Your task to perform on an android device: turn vacation reply on in the gmail app Image 0: 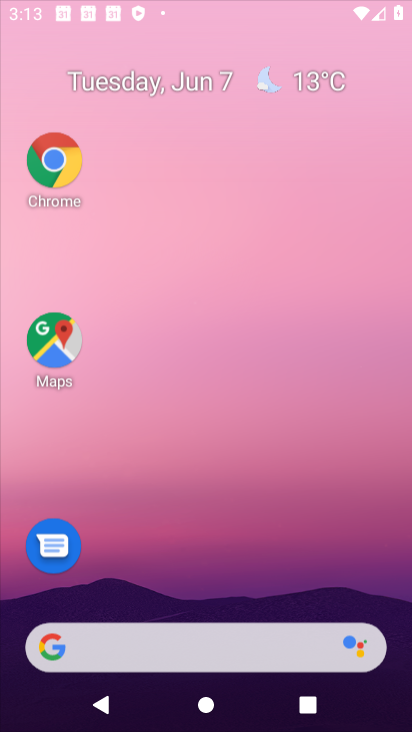
Step 0: click (188, 134)
Your task to perform on an android device: turn vacation reply on in the gmail app Image 1: 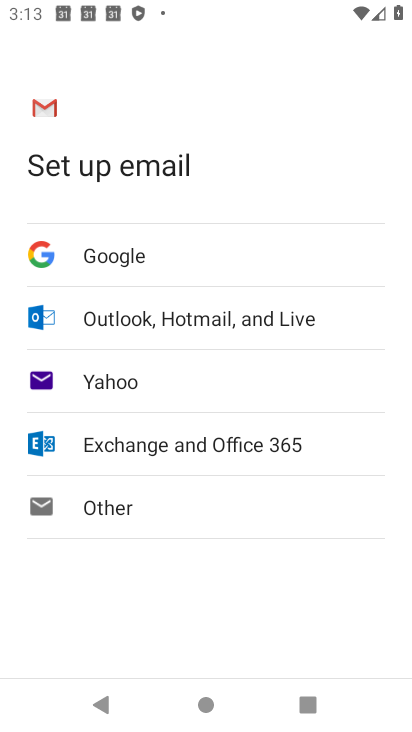
Step 1: press home button
Your task to perform on an android device: turn vacation reply on in the gmail app Image 2: 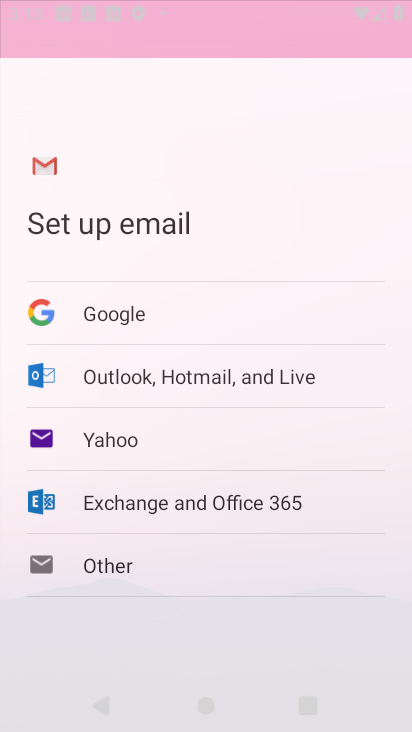
Step 2: drag from (204, 576) to (311, 95)
Your task to perform on an android device: turn vacation reply on in the gmail app Image 3: 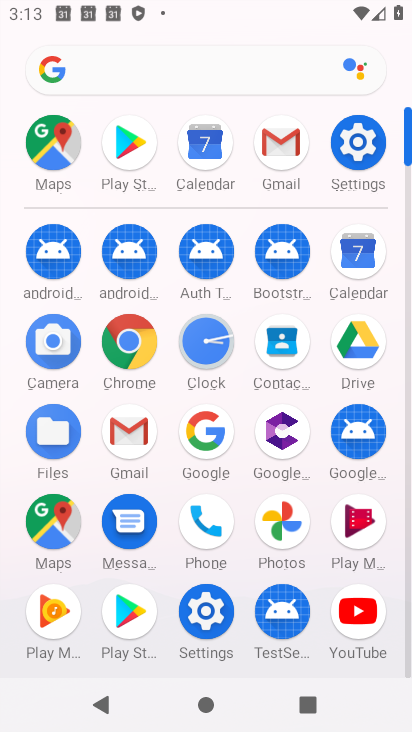
Step 3: click (138, 419)
Your task to perform on an android device: turn vacation reply on in the gmail app Image 4: 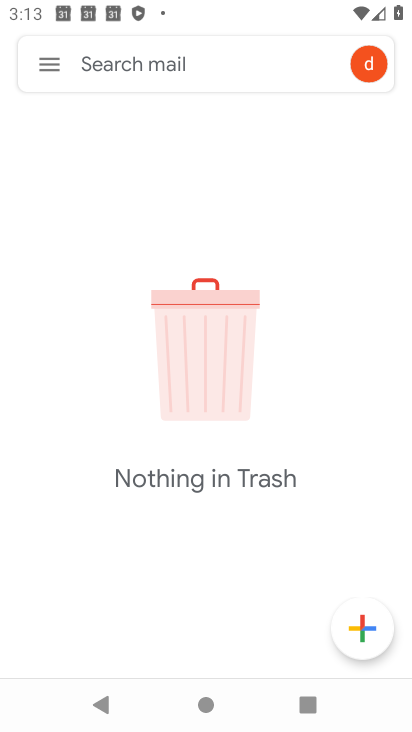
Step 4: click (43, 58)
Your task to perform on an android device: turn vacation reply on in the gmail app Image 5: 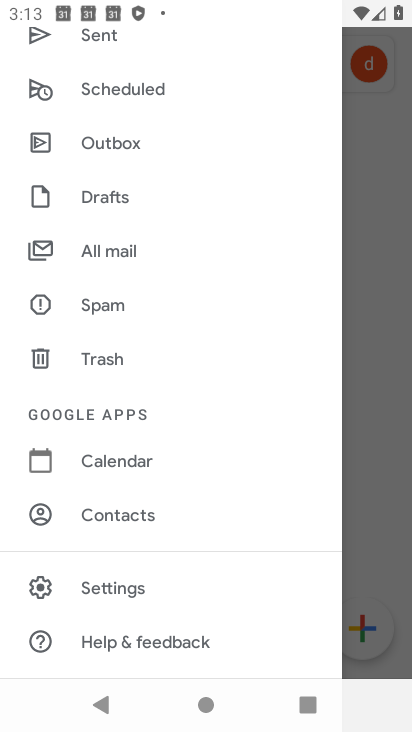
Step 5: click (130, 595)
Your task to perform on an android device: turn vacation reply on in the gmail app Image 6: 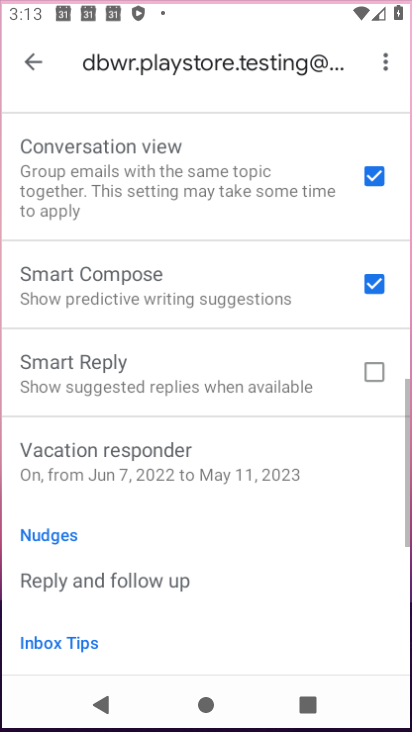
Step 6: drag from (131, 551) to (167, 36)
Your task to perform on an android device: turn vacation reply on in the gmail app Image 7: 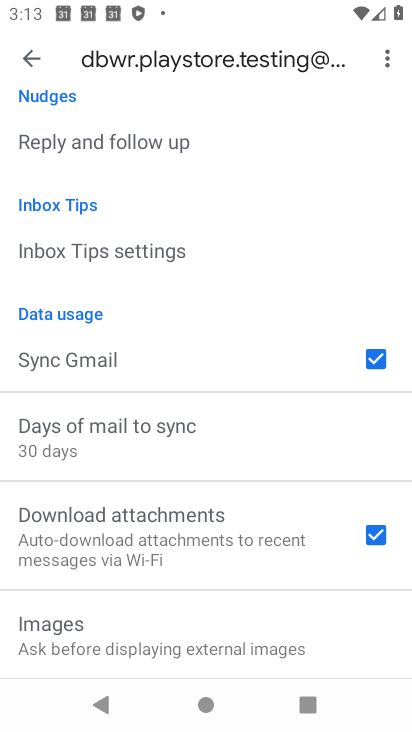
Step 7: drag from (200, 557) to (214, 139)
Your task to perform on an android device: turn vacation reply on in the gmail app Image 8: 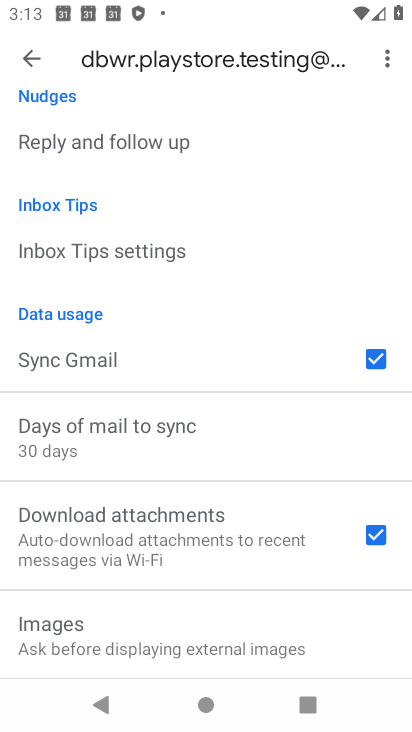
Step 8: drag from (197, 603) to (287, 262)
Your task to perform on an android device: turn vacation reply on in the gmail app Image 9: 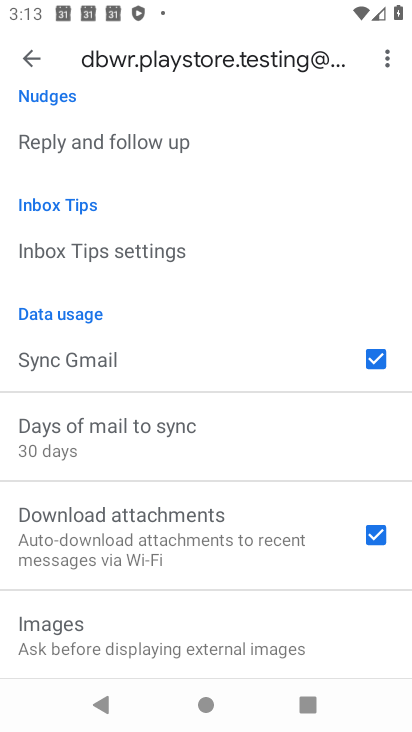
Step 9: drag from (211, 155) to (166, 722)
Your task to perform on an android device: turn vacation reply on in the gmail app Image 10: 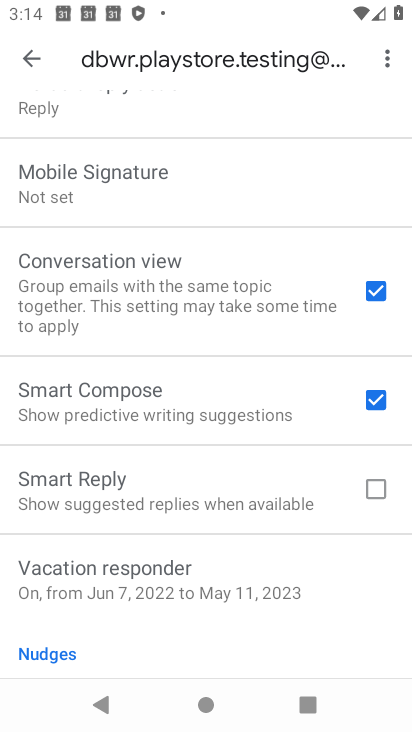
Step 10: click (132, 564)
Your task to perform on an android device: turn vacation reply on in the gmail app Image 11: 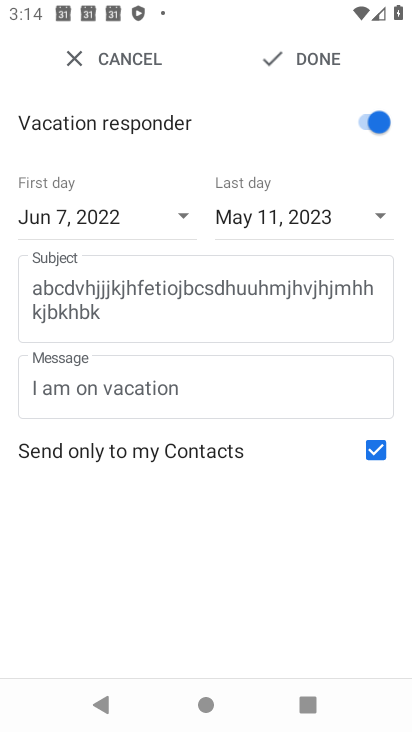
Step 11: drag from (252, 439) to (308, 76)
Your task to perform on an android device: turn vacation reply on in the gmail app Image 12: 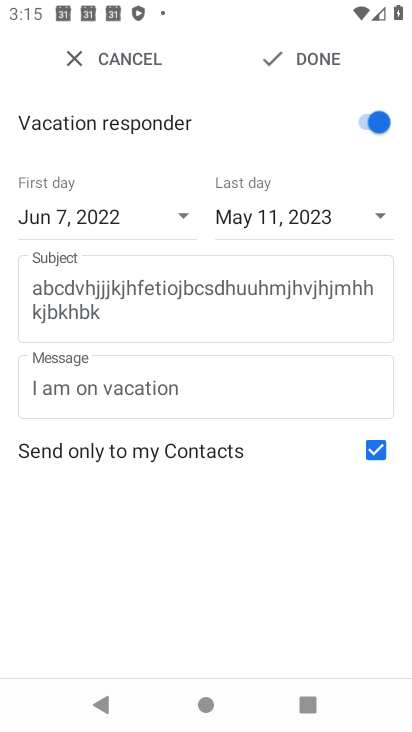
Step 12: click (291, 64)
Your task to perform on an android device: turn vacation reply on in the gmail app Image 13: 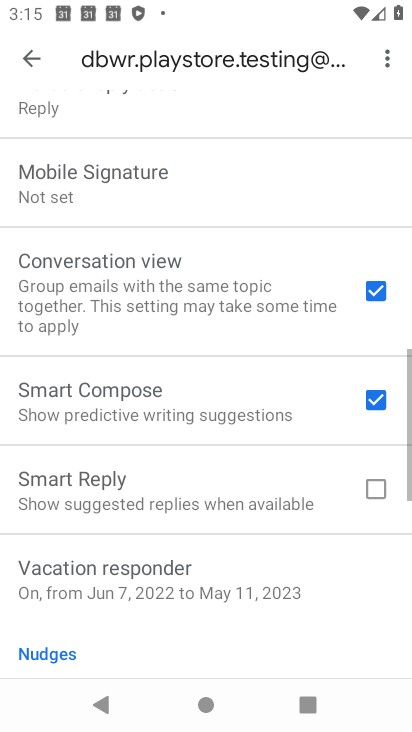
Step 13: task complete